Your task to perform on an android device: Open Amazon Image 0: 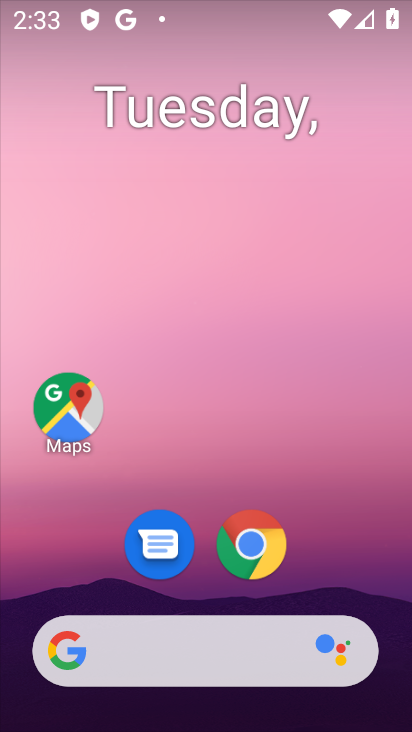
Step 0: click (234, 550)
Your task to perform on an android device: Open Amazon Image 1: 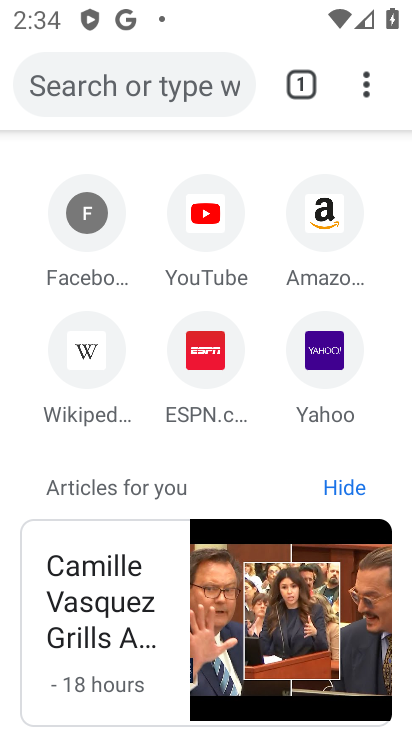
Step 1: click (320, 215)
Your task to perform on an android device: Open Amazon Image 2: 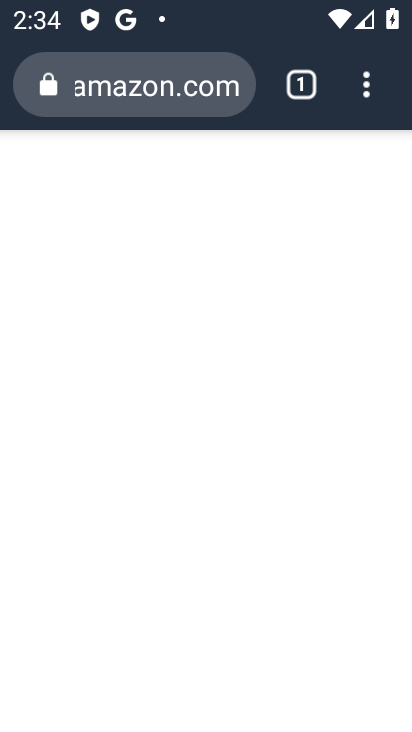
Step 2: task complete